Your task to perform on an android device: Go to CNN.com Image 0: 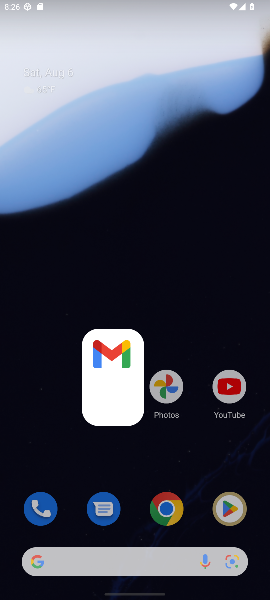
Step 0: press home button
Your task to perform on an android device: Go to CNN.com Image 1: 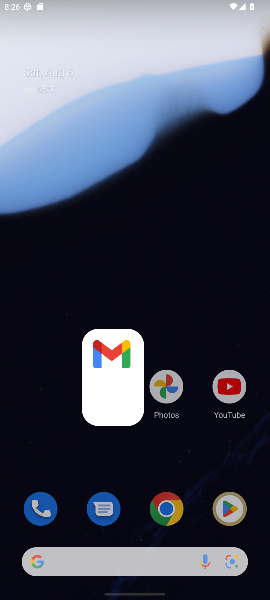
Step 1: click (92, 19)
Your task to perform on an android device: Go to CNN.com Image 2: 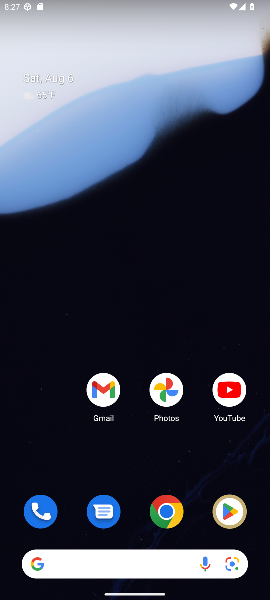
Step 2: click (175, 512)
Your task to perform on an android device: Go to CNN.com Image 3: 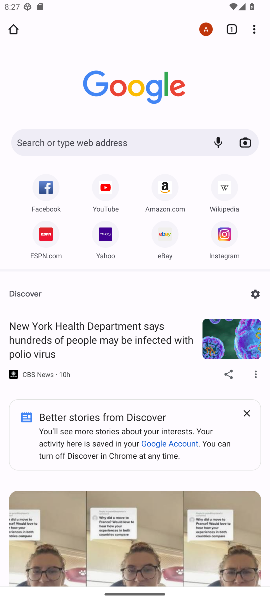
Step 3: click (134, 139)
Your task to perform on an android device: Go to CNN.com Image 4: 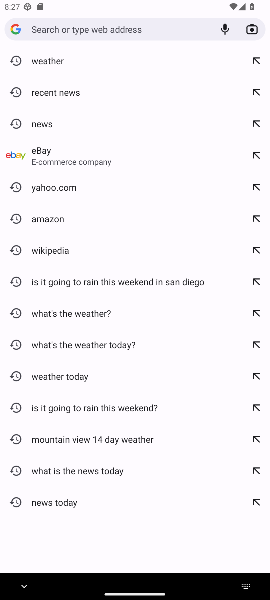
Step 4: type "CNN.com"
Your task to perform on an android device: Go to CNN.com Image 5: 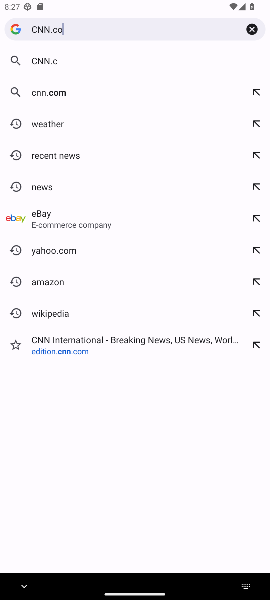
Step 5: type ""
Your task to perform on an android device: Go to CNN.com Image 6: 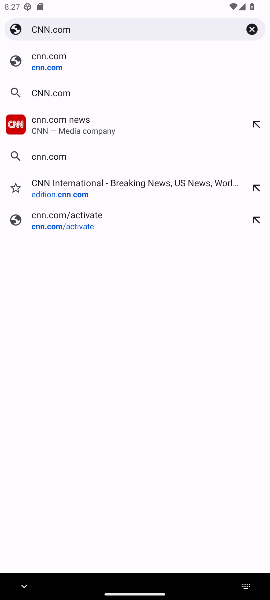
Step 6: click (34, 64)
Your task to perform on an android device: Go to CNN.com Image 7: 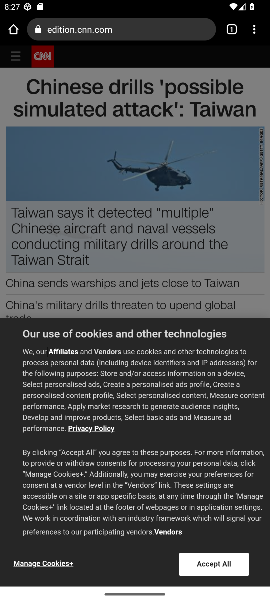
Step 7: task complete